Your task to perform on an android device: turn off translation in the chrome app Image 0: 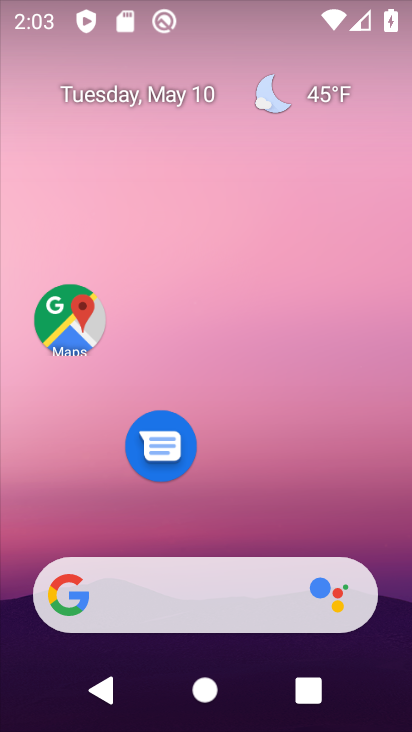
Step 0: drag from (291, 506) to (312, 142)
Your task to perform on an android device: turn off translation in the chrome app Image 1: 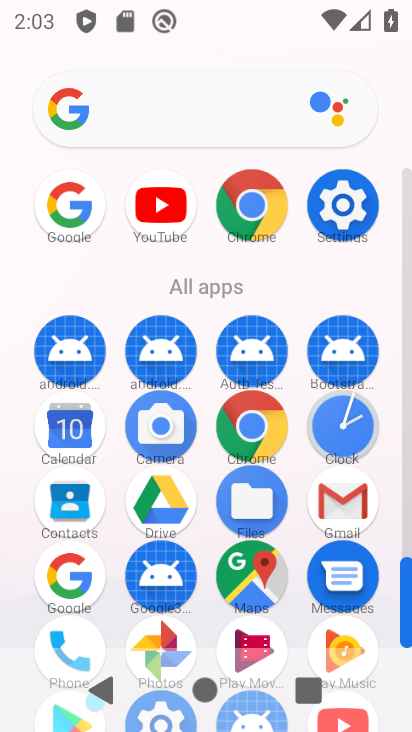
Step 1: click (258, 206)
Your task to perform on an android device: turn off translation in the chrome app Image 2: 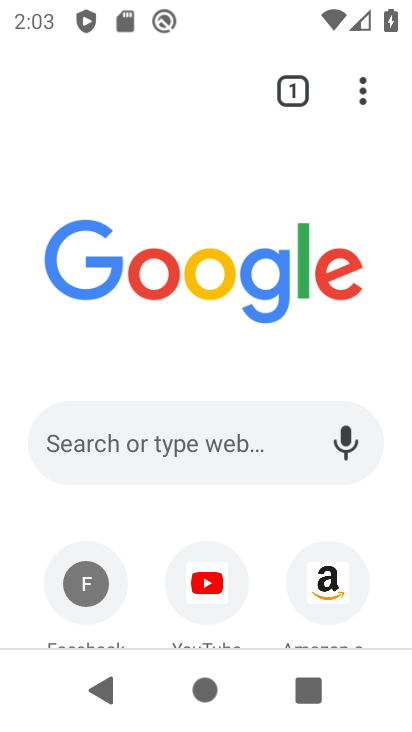
Step 2: click (357, 90)
Your task to perform on an android device: turn off translation in the chrome app Image 3: 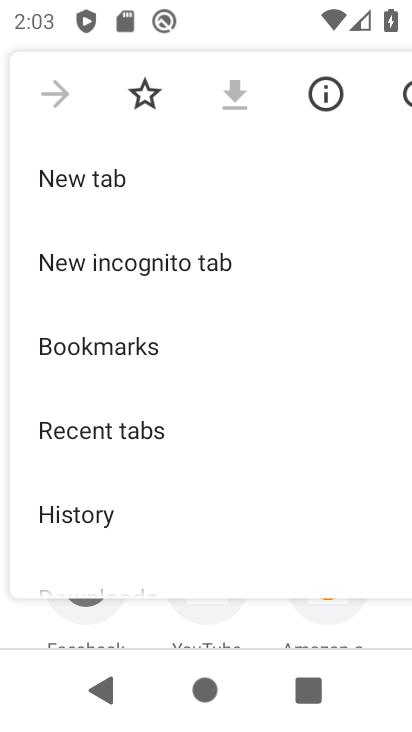
Step 3: drag from (266, 425) to (319, 21)
Your task to perform on an android device: turn off translation in the chrome app Image 4: 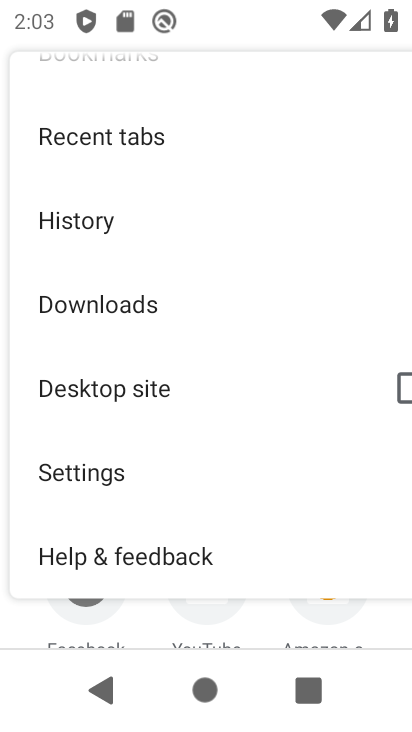
Step 4: click (114, 458)
Your task to perform on an android device: turn off translation in the chrome app Image 5: 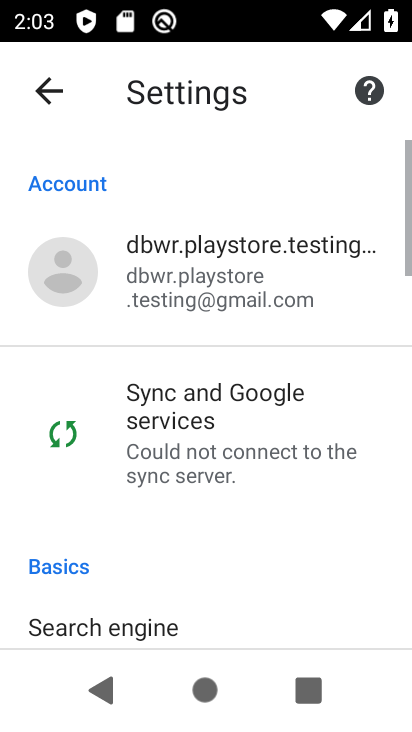
Step 5: drag from (251, 533) to (257, 71)
Your task to perform on an android device: turn off translation in the chrome app Image 6: 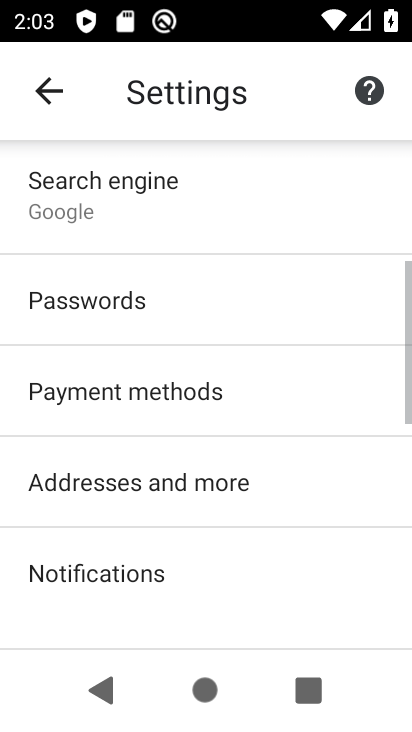
Step 6: drag from (239, 570) to (254, 176)
Your task to perform on an android device: turn off translation in the chrome app Image 7: 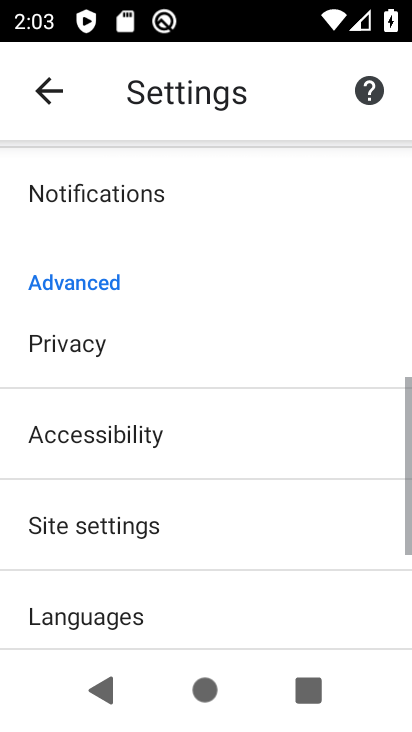
Step 7: drag from (214, 582) to (247, 376)
Your task to perform on an android device: turn off translation in the chrome app Image 8: 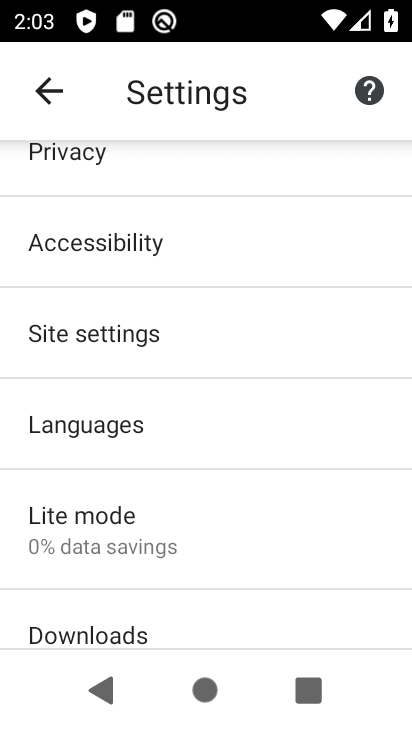
Step 8: click (134, 420)
Your task to perform on an android device: turn off translation in the chrome app Image 9: 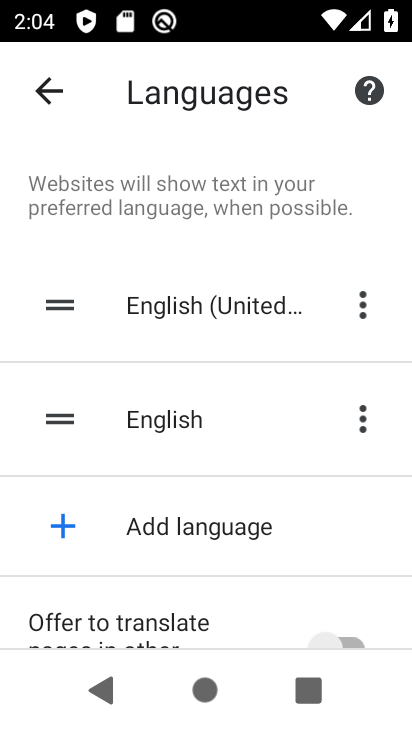
Step 9: task complete